Your task to perform on an android device: open app "PUBG MOBILE" (install if not already installed) Image 0: 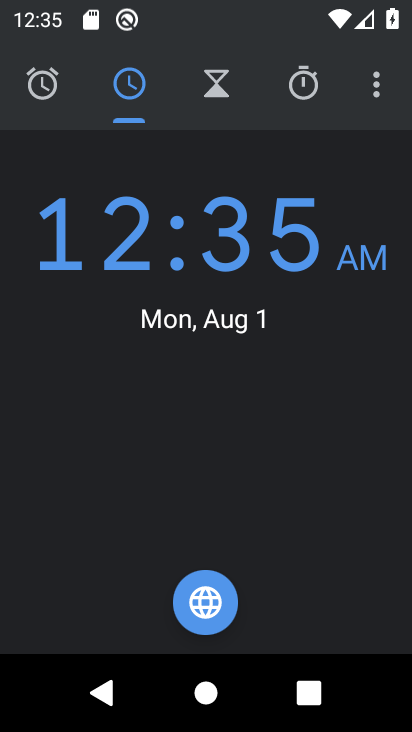
Step 0: press home button
Your task to perform on an android device: open app "PUBG MOBILE" (install if not already installed) Image 1: 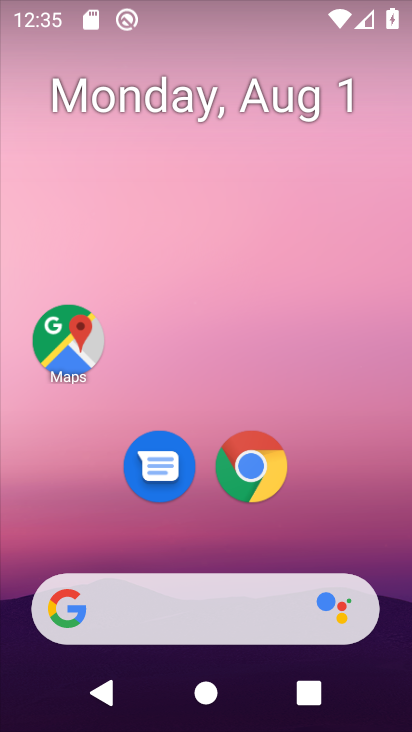
Step 1: drag from (234, 537) to (144, 7)
Your task to perform on an android device: open app "PUBG MOBILE" (install if not already installed) Image 2: 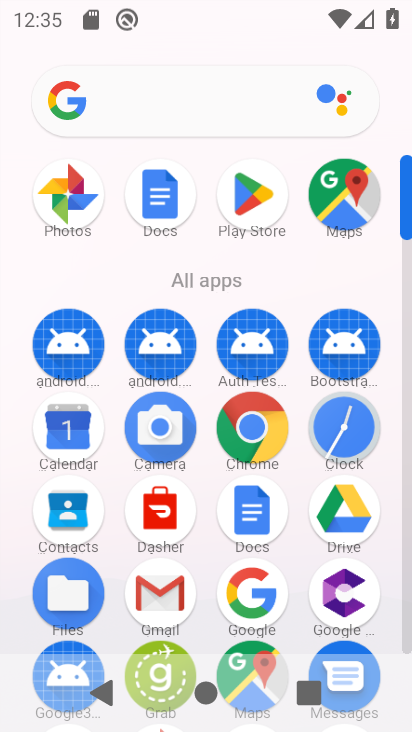
Step 2: click (258, 204)
Your task to perform on an android device: open app "PUBG MOBILE" (install if not already installed) Image 3: 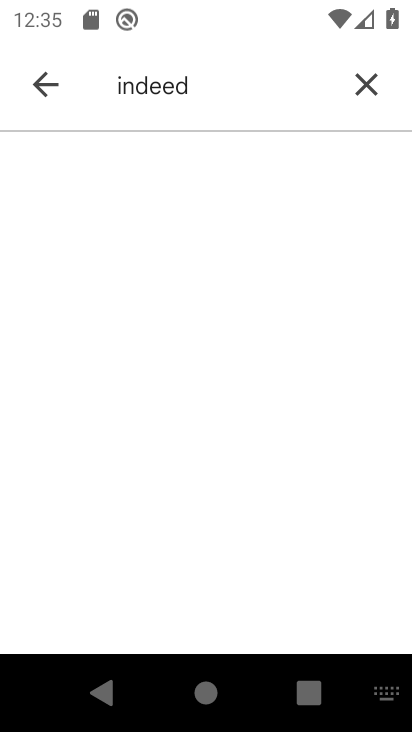
Step 3: click (376, 85)
Your task to perform on an android device: open app "PUBG MOBILE" (install if not already installed) Image 4: 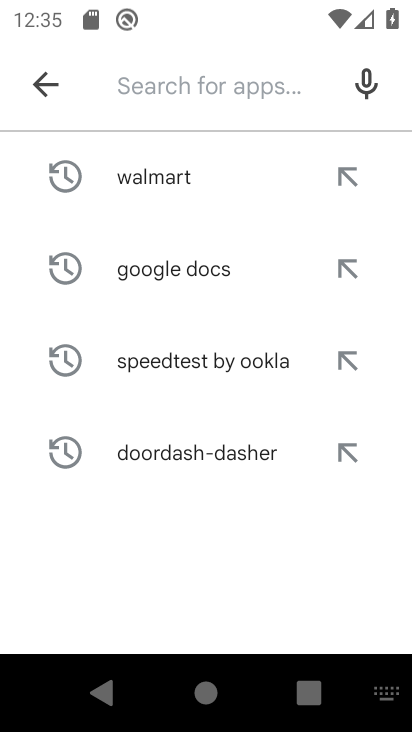
Step 4: type "PUBG "
Your task to perform on an android device: open app "PUBG MOBILE" (install if not already installed) Image 5: 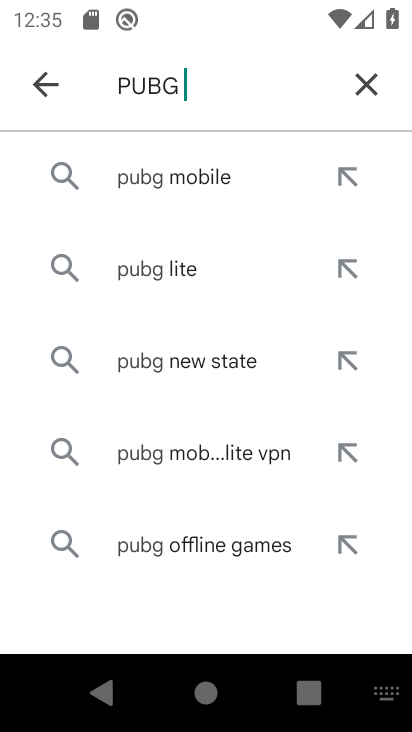
Step 5: click (165, 166)
Your task to perform on an android device: open app "PUBG MOBILE" (install if not already installed) Image 6: 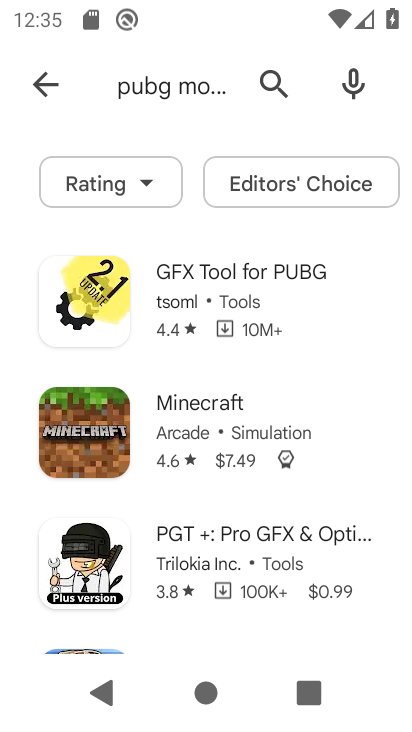
Step 6: task complete